Your task to perform on an android device: Show me recent news Image 0: 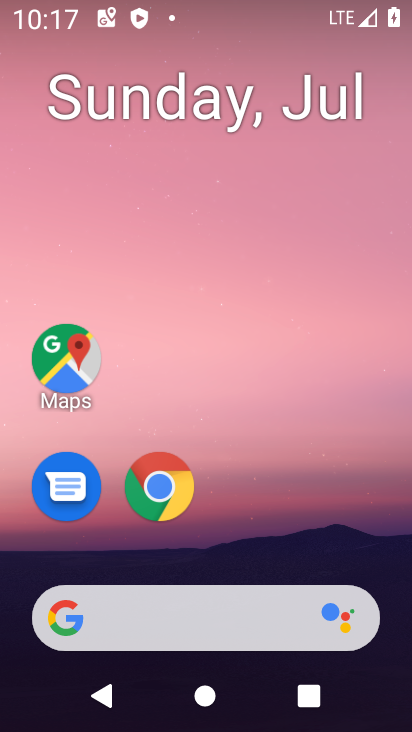
Step 0: press home button
Your task to perform on an android device: Show me recent news Image 1: 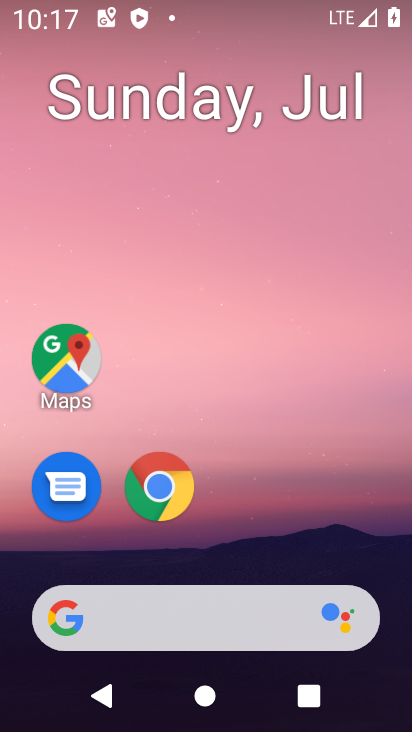
Step 1: task complete